Your task to perform on an android device: Open display settings Image 0: 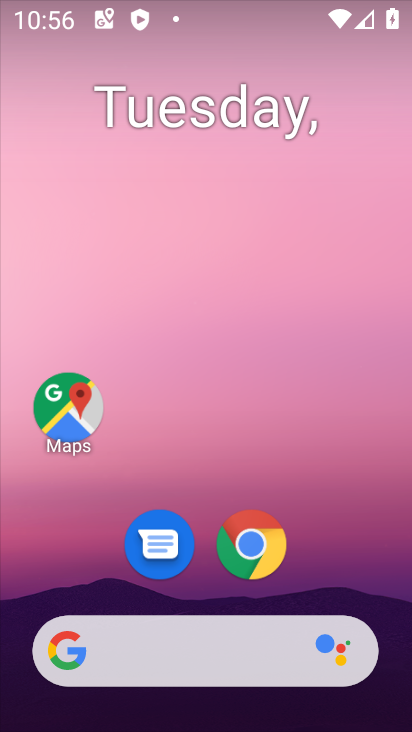
Step 0: drag from (390, 652) to (124, 55)
Your task to perform on an android device: Open display settings Image 1: 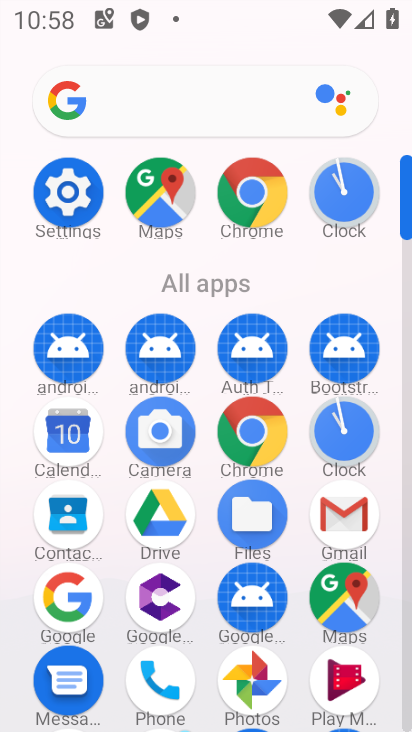
Step 1: click (77, 209)
Your task to perform on an android device: Open display settings Image 2: 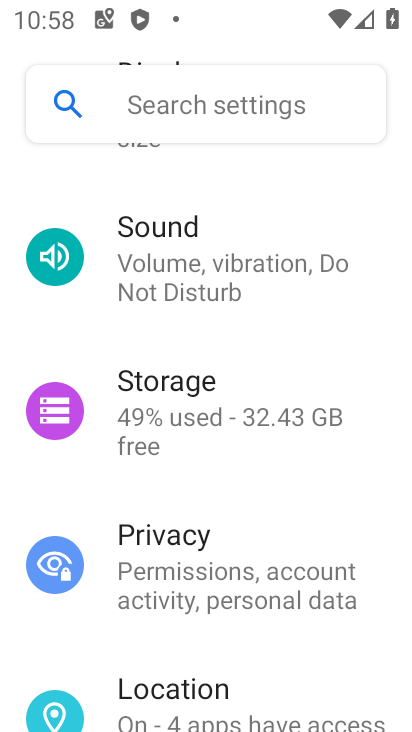
Step 2: drag from (210, 301) to (188, 611)
Your task to perform on an android device: Open display settings Image 3: 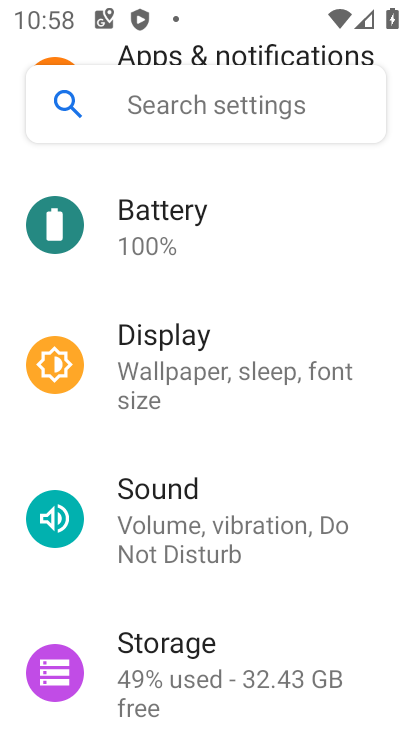
Step 3: click (226, 377)
Your task to perform on an android device: Open display settings Image 4: 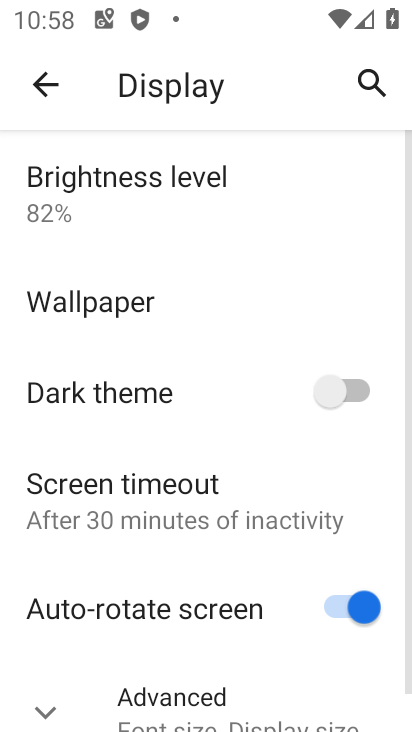
Step 4: task complete